Your task to perform on an android device: turn pop-ups off in chrome Image 0: 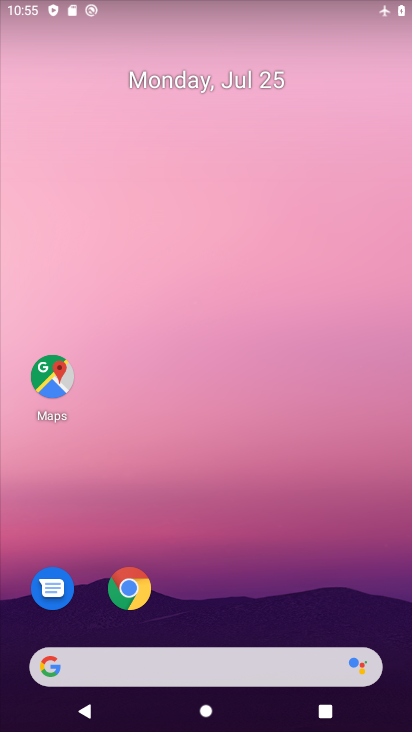
Step 0: click (126, 594)
Your task to perform on an android device: turn pop-ups off in chrome Image 1: 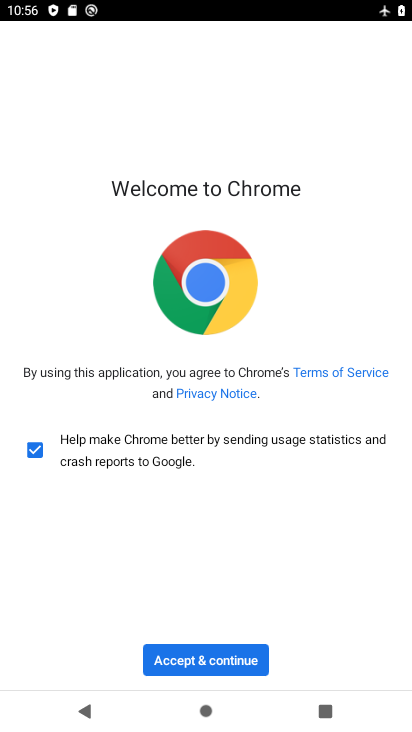
Step 1: click (189, 661)
Your task to perform on an android device: turn pop-ups off in chrome Image 2: 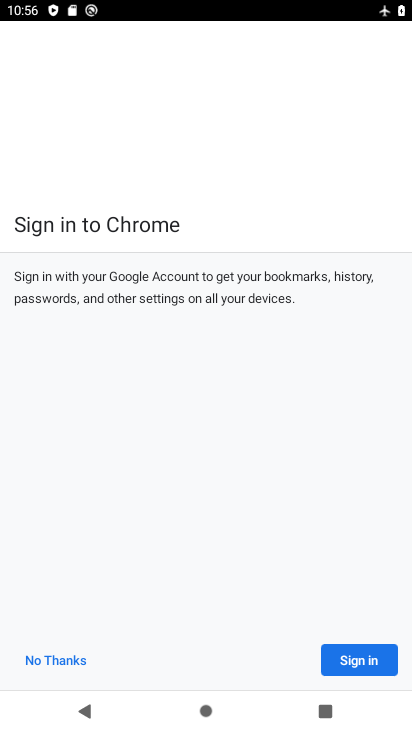
Step 2: click (71, 663)
Your task to perform on an android device: turn pop-ups off in chrome Image 3: 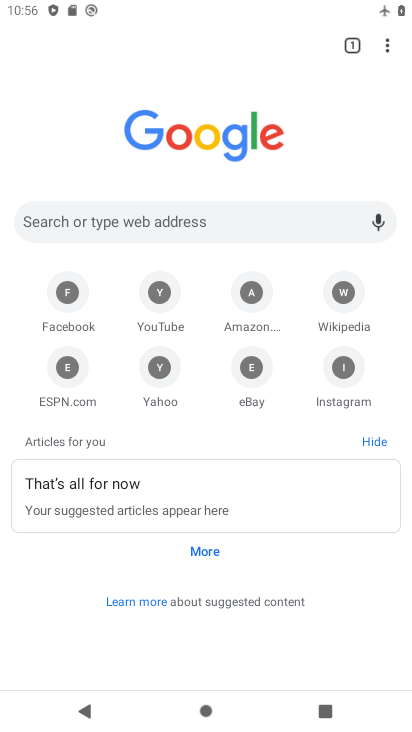
Step 3: click (386, 47)
Your task to perform on an android device: turn pop-ups off in chrome Image 4: 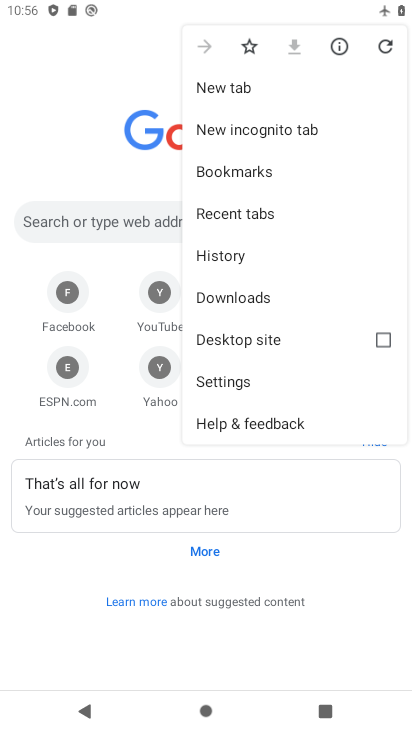
Step 4: click (229, 386)
Your task to perform on an android device: turn pop-ups off in chrome Image 5: 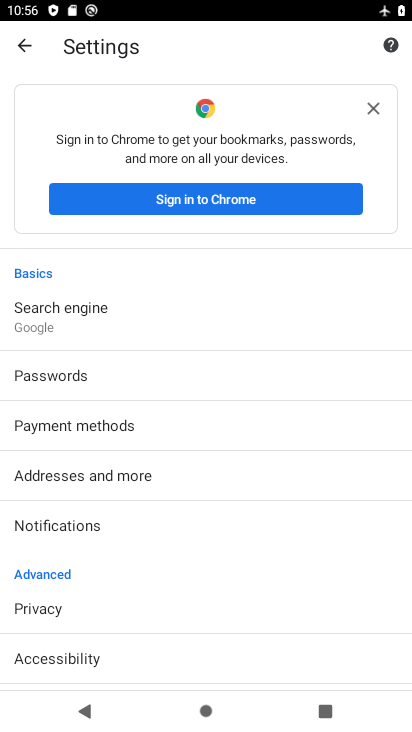
Step 5: drag from (72, 596) to (68, 377)
Your task to perform on an android device: turn pop-ups off in chrome Image 6: 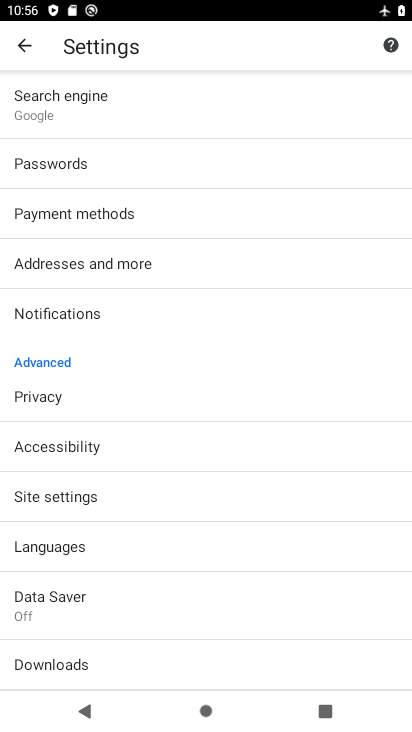
Step 6: click (64, 494)
Your task to perform on an android device: turn pop-ups off in chrome Image 7: 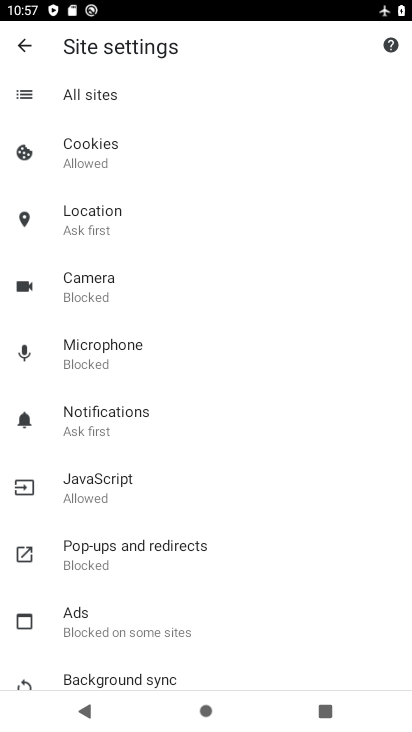
Step 7: click (150, 573)
Your task to perform on an android device: turn pop-ups off in chrome Image 8: 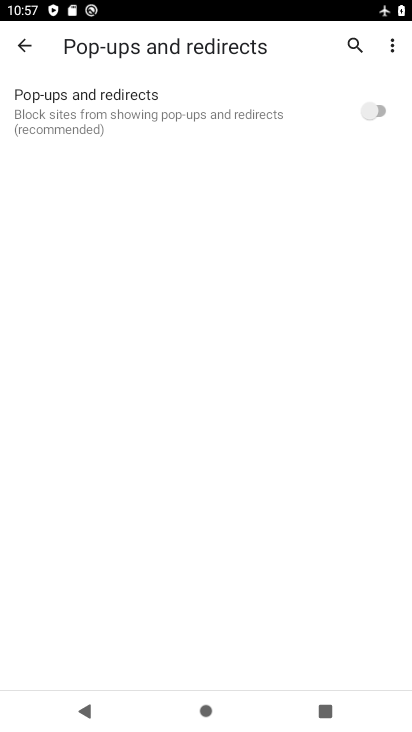
Step 8: task complete